Your task to perform on an android device: snooze an email in the gmail app Image 0: 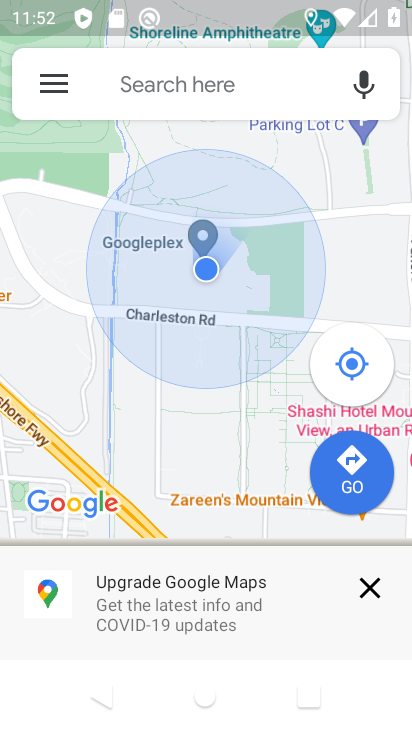
Step 0: press home button
Your task to perform on an android device: snooze an email in the gmail app Image 1: 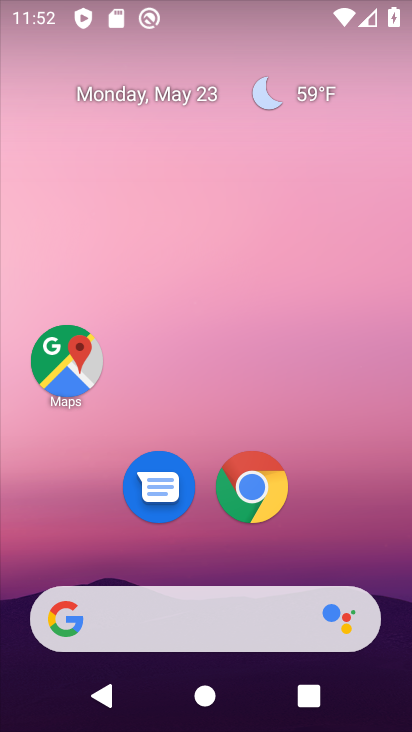
Step 1: drag from (208, 548) to (157, 69)
Your task to perform on an android device: snooze an email in the gmail app Image 2: 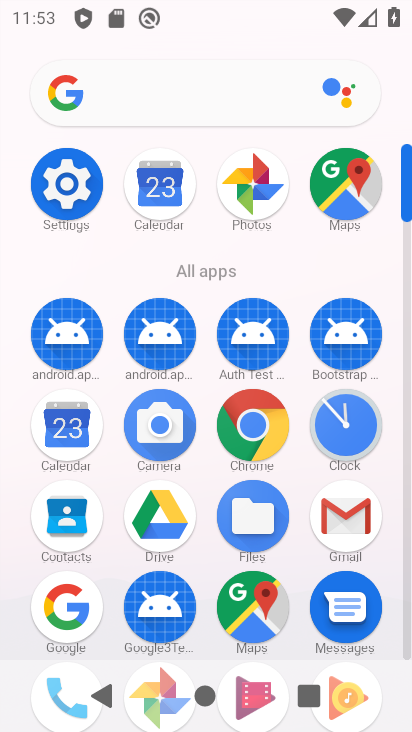
Step 2: click (362, 507)
Your task to perform on an android device: snooze an email in the gmail app Image 3: 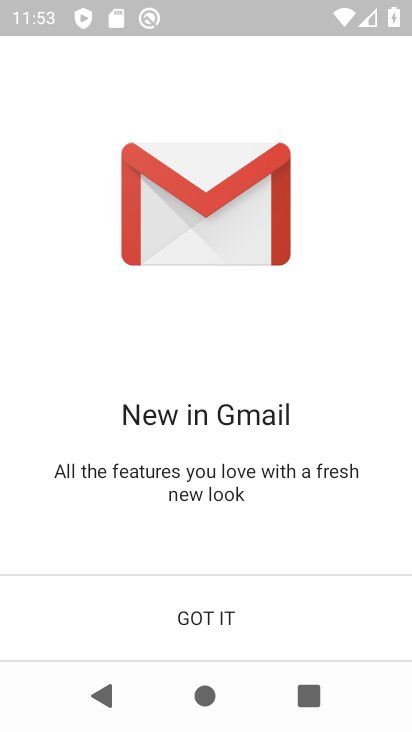
Step 3: click (239, 629)
Your task to perform on an android device: snooze an email in the gmail app Image 4: 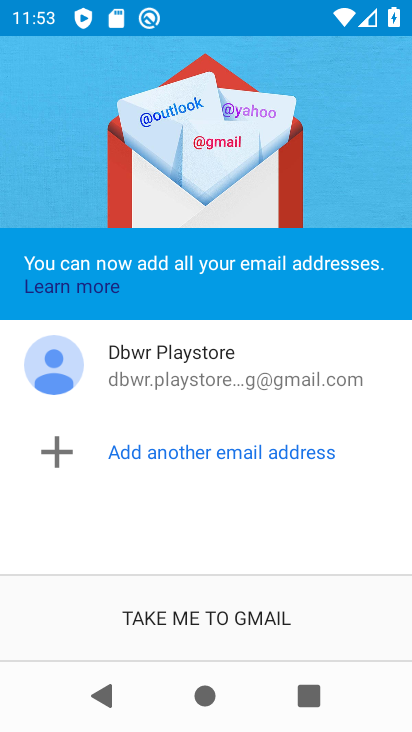
Step 4: click (223, 615)
Your task to perform on an android device: snooze an email in the gmail app Image 5: 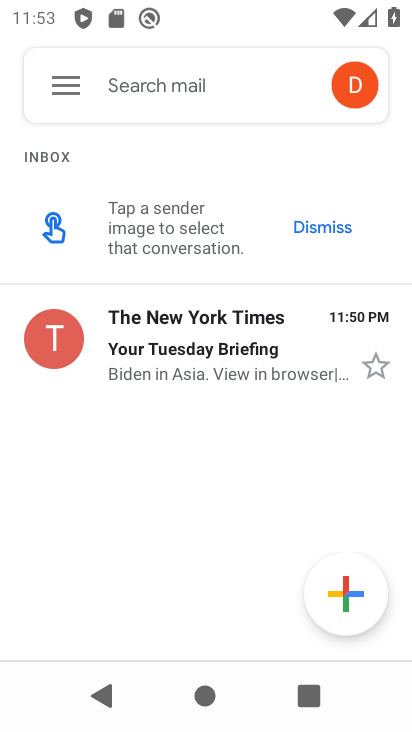
Step 5: click (246, 339)
Your task to perform on an android device: snooze an email in the gmail app Image 6: 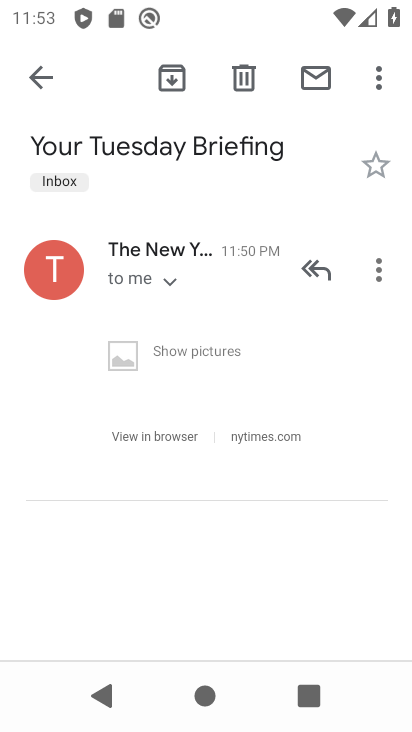
Step 6: click (384, 76)
Your task to perform on an android device: snooze an email in the gmail app Image 7: 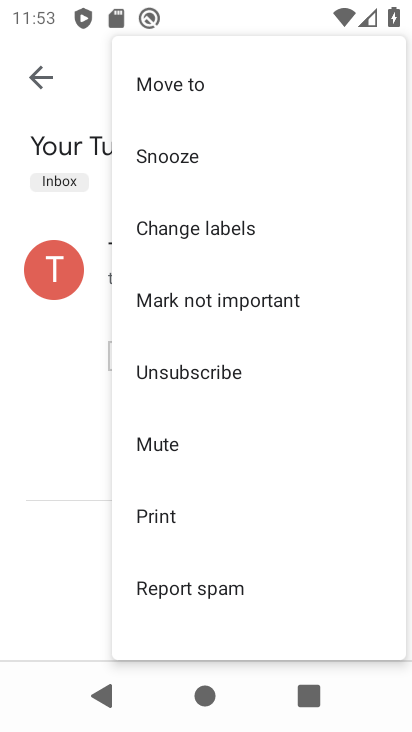
Step 7: click (145, 168)
Your task to perform on an android device: snooze an email in the gmail app Image 8: 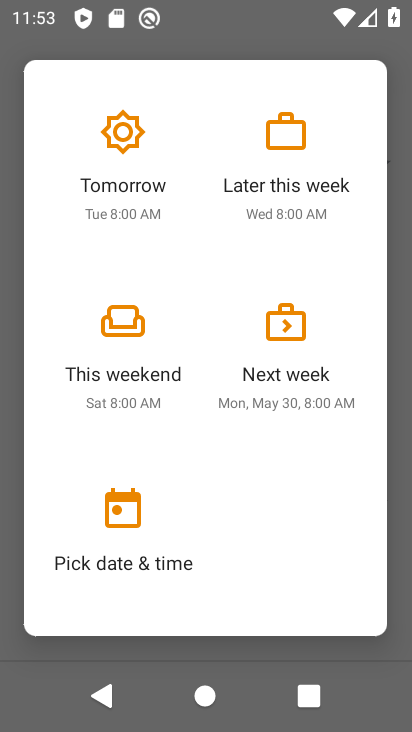
Step 8: click (108, 369)
Your task to perform on an android device: snooze an email in the gmail app Image 9: 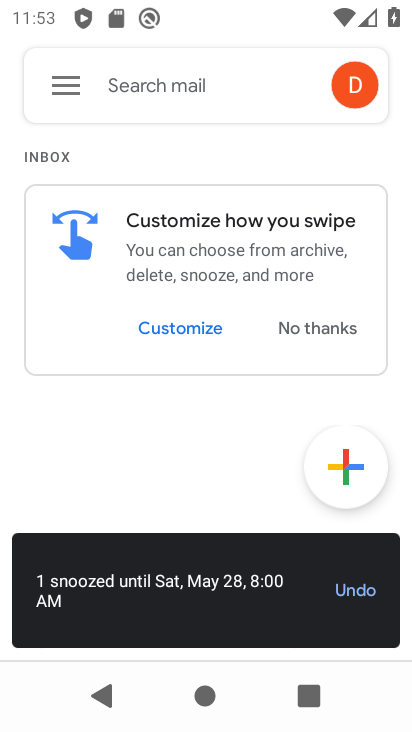
Step 9: task complete